Your task to perform on an android device: set an alarm Image 0: 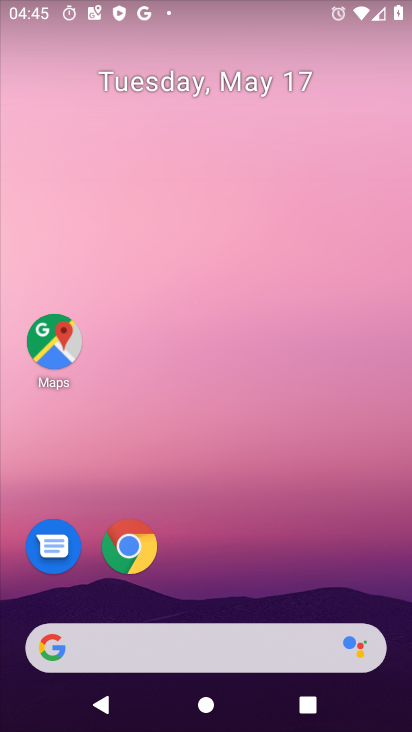
Step 0: drag from (392, 570) to (357, 403)
Your task to perform on an android device: set an alarm Image 1: 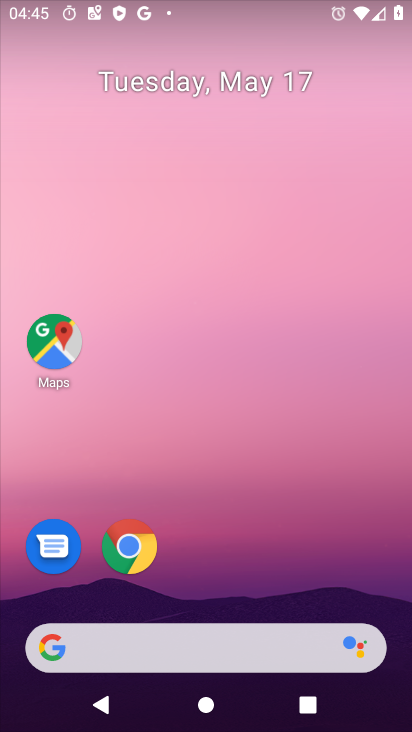
Step 1: drag from (386, 634) to (333, 379)
Your task to perform on an android device: set an alarm Image 2: 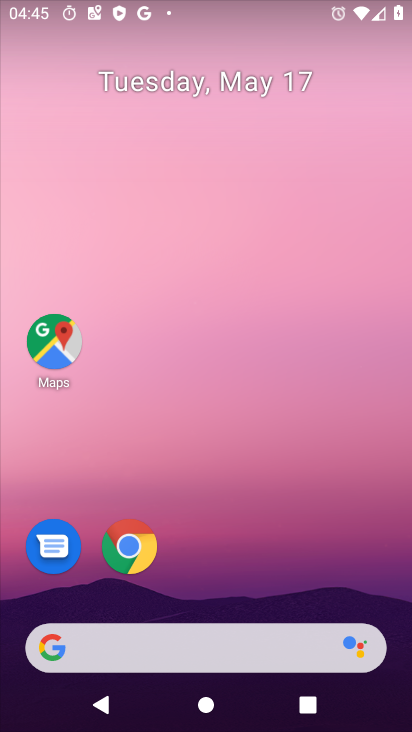
Step 2: drag from (393, 677) to (348, 314)
Your task to perform on an android device: set an alarm Image 3: 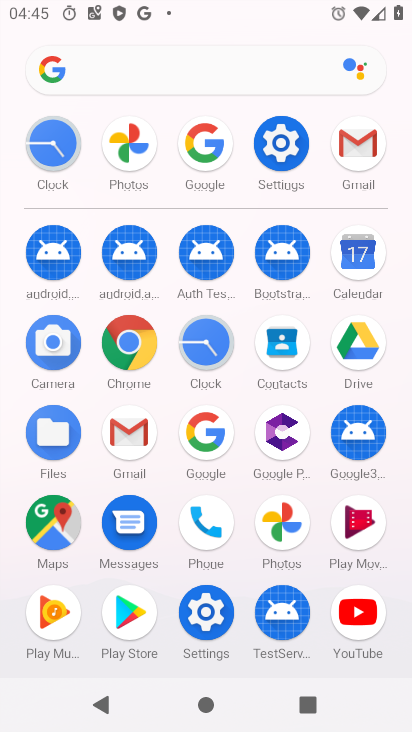
Step 3: click (180, 335)
Your task to perform on an android device: set an alarm Image 4: 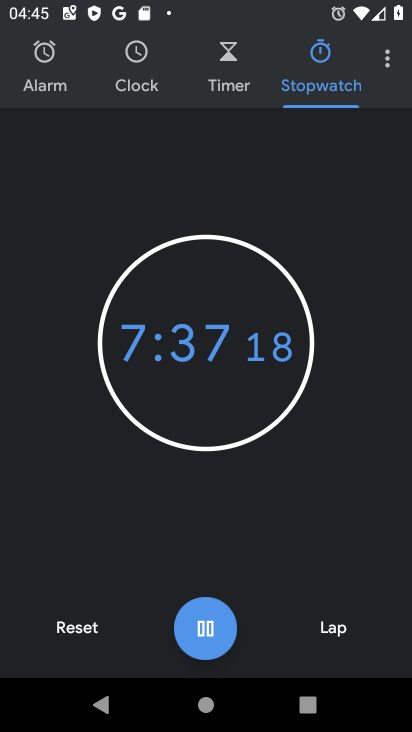
Step 4: click (45, 84)
Your task to perform on an android device: set an alarm Image 5: 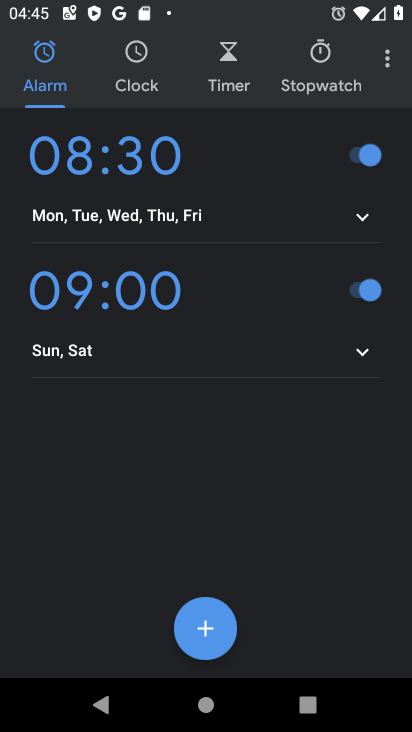
Step 5: click (215, 616)
Your task to perform on an android device: set an alarm Image 6: 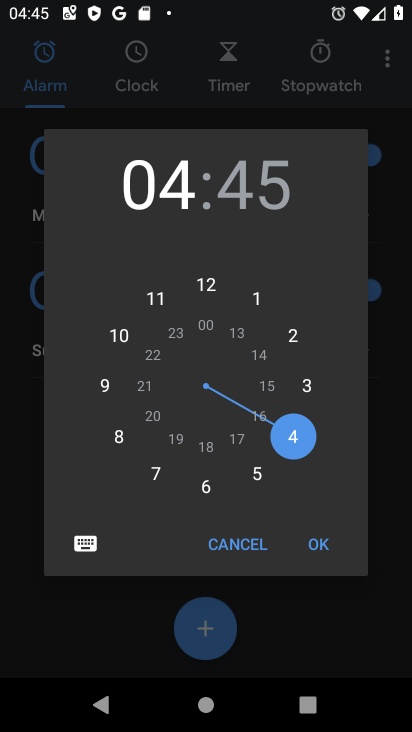
Step 6: click (256, 477)
Your task to perform on an android device: set an alarm Image 7: 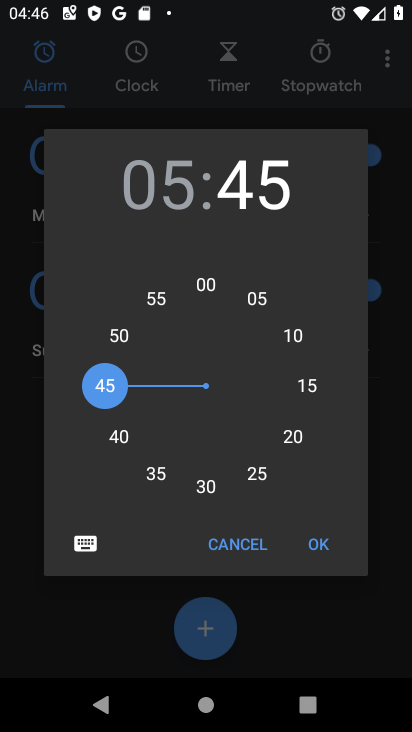
Step 7: click (316, 552)
Your task to perform on an android device: set an alarm Image 8: 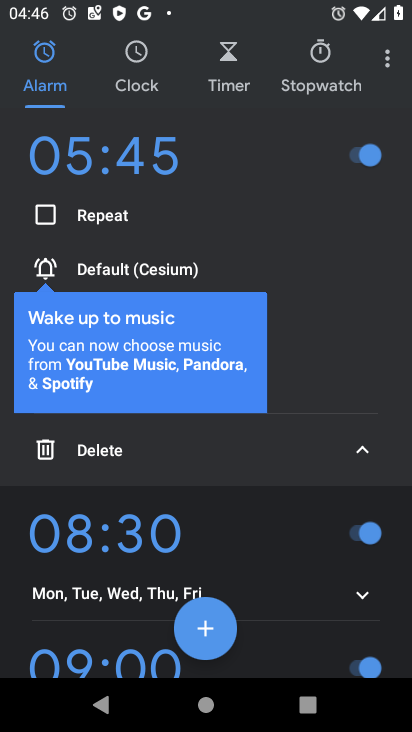
Step 8: click (111, 270)
Your task to perform on an android device: set an alarm Image 9: 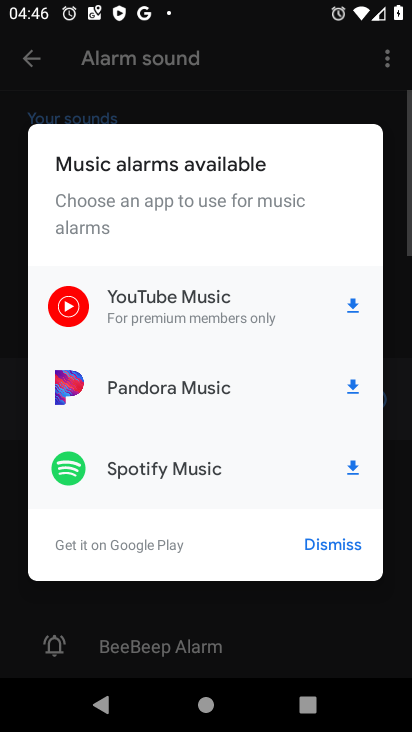
Step 9: click (357, 448)
Your task to perform on an android device: set an alarm Image 10: 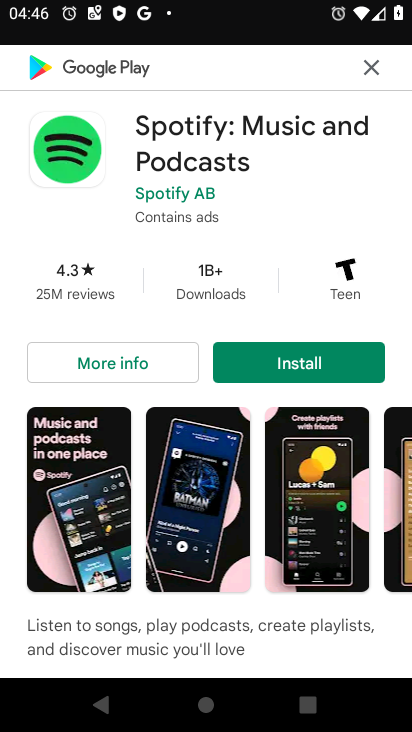
Step 10: click (361, 70)
Your task to perform on an android device: set an alarm Image 11: 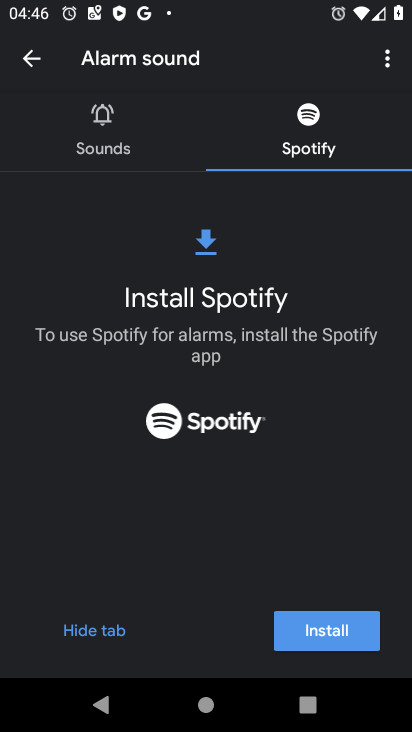
Step 11: click (40, 58)
Your task to perform on an android device: set an alarm Image 12: 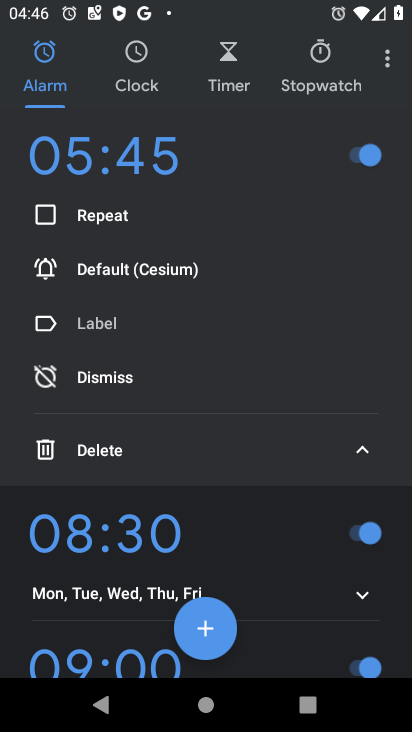
Step 12: click (51, 219)
Your task to perform on an android device: set an alarm Image 13: 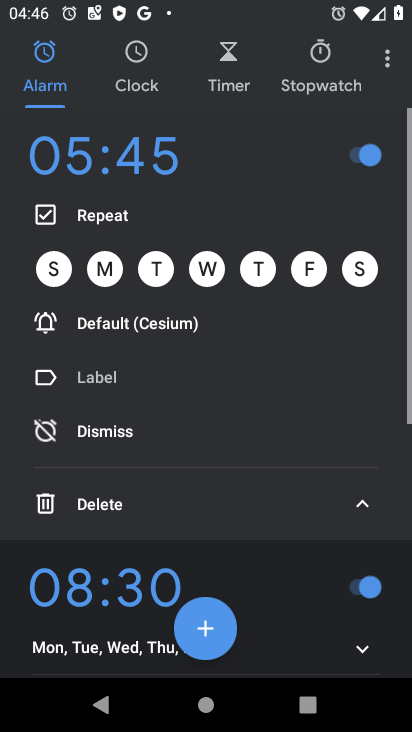
Step 13: click (360, 458)
Your task to perform on an android device: set an alarm Image 14: 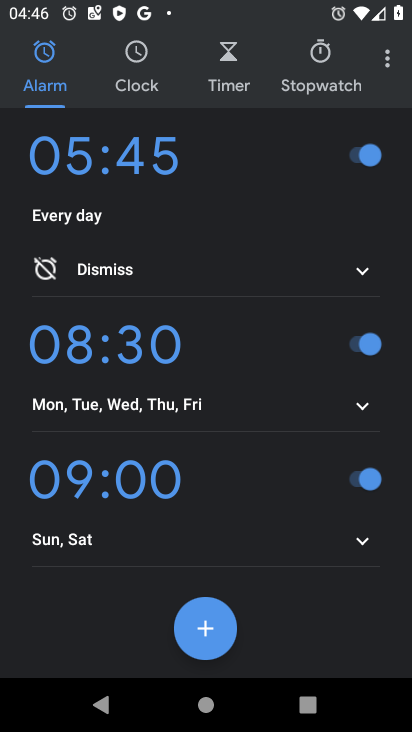
Step 14: click (348, 274)
Your task to perform on an android device: set an alarm Image 15: 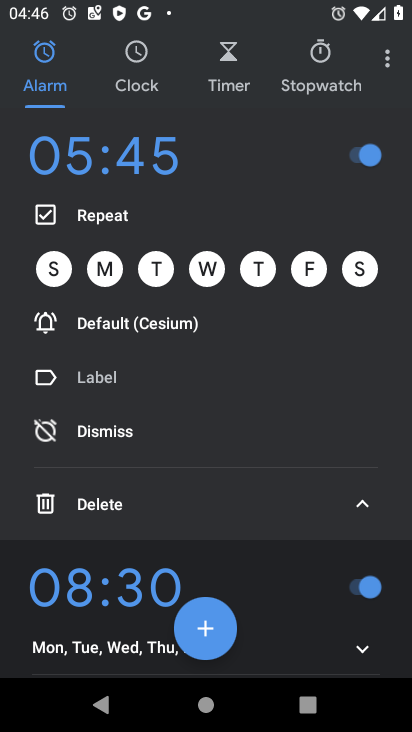
Step 15: click (100, 433)
Your task to perform on an android device: set an alarm Image 16: 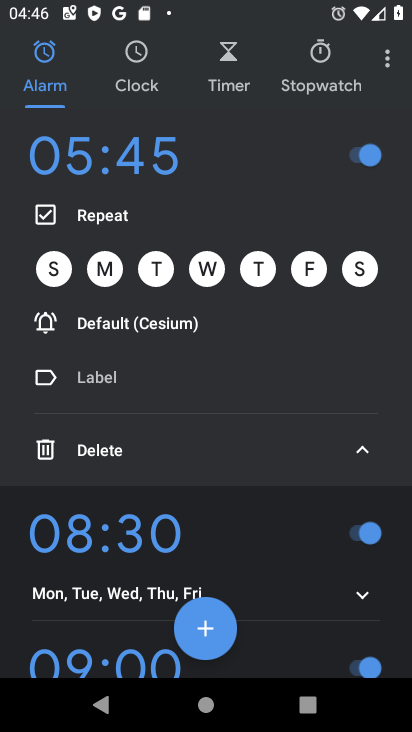
Step 16: click (365, 449)
Your task to perform on an android device: set an alarm Image 17: 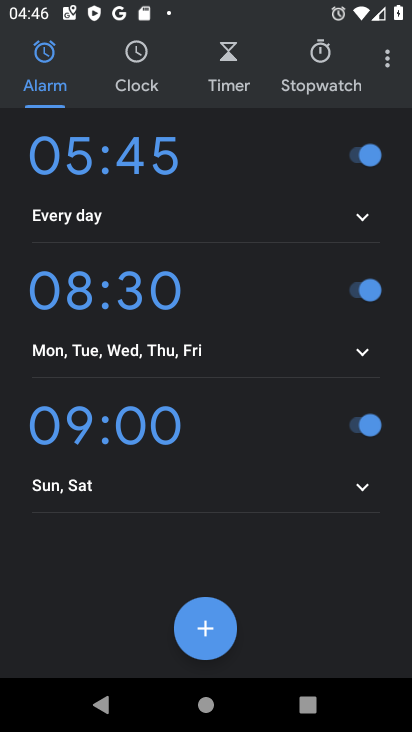
Step 17: task complete